Your task to perform on an android device: open chrome and create a bookmark for the current page Image 0: 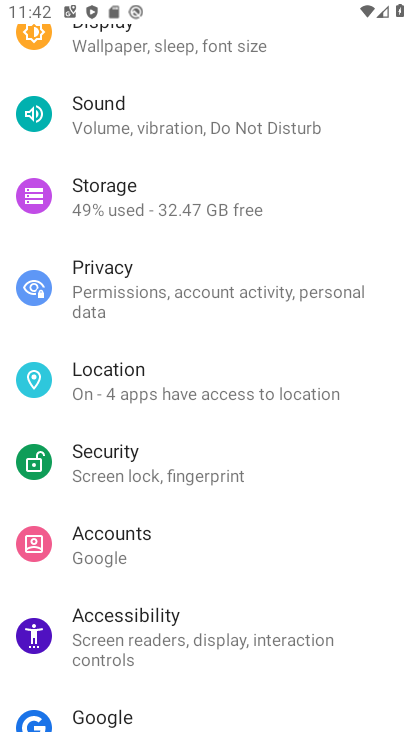
Step 0: press home button
Your task to perform on an android device: open chrome and create a bookmark for the current page Image 1: 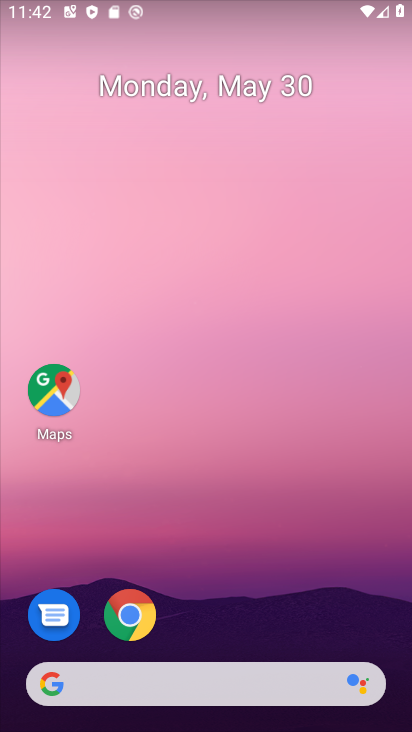
Step 1: drag from (355, 624) to (339, 116)
Your task to perform on an android device: open chrome and create a bookmark for the current page Image 2: 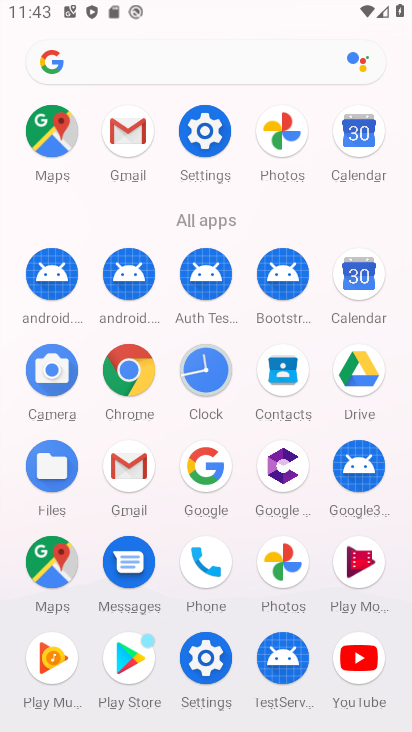
Step 2: click (149, 387)
Your task to perform on an android device: open chrome and create a bookmark for the current page Image 3: 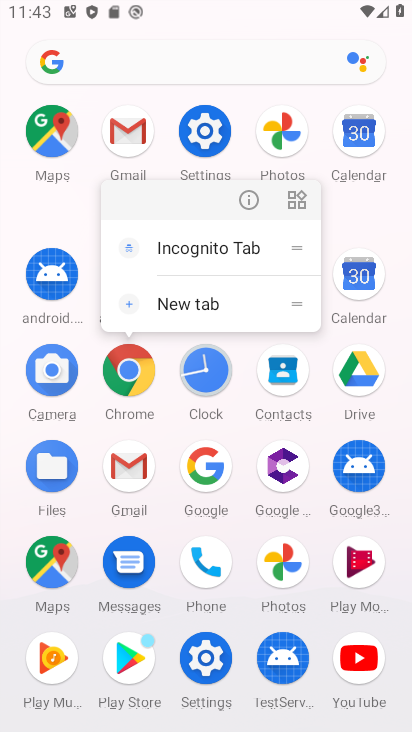
Step 3: click (145, 382)
Your task to perform on an android device: open chrome and create a bookmark for the current page Image 4: 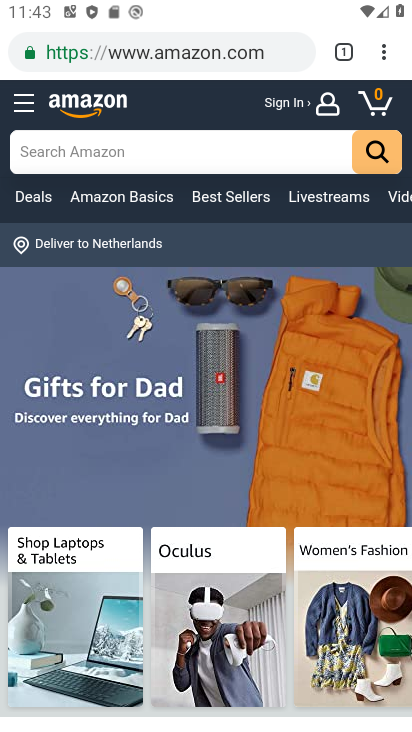
Step 4: click (386, 60)
Your task to perform on an android device: open chrome and create a bookmark for the current page Image 5: 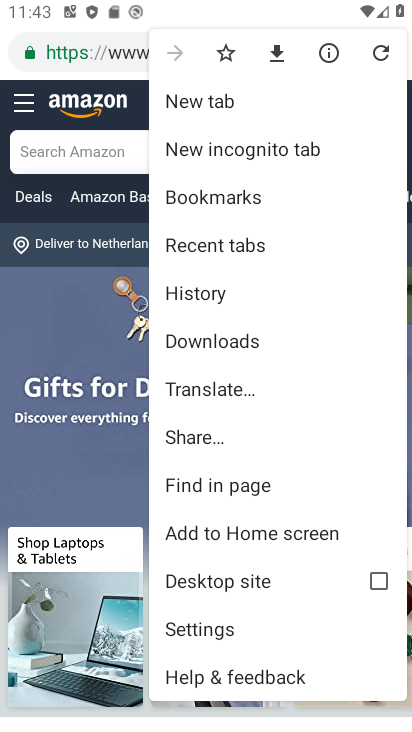
Step 5: click (218, 56)
Your task to perform on an android device: open chrome and create a bookmark for the current page Image 6: 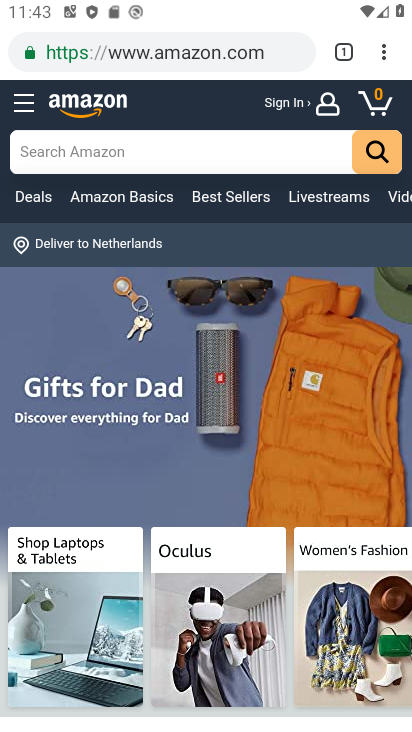
Step 6: task complete